Your task to perform on an android device: Open Google Chrome and click the shortcut for Amazon.com Image 0: 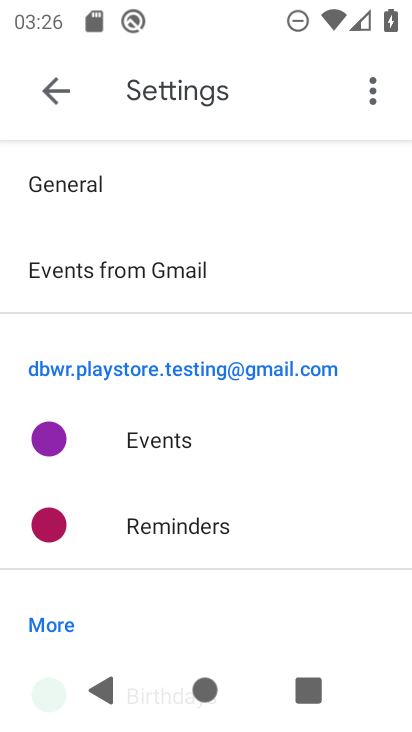
Step 0: press home button
Your task to perform on an android device: Open Google Chrome and click the shortcut for Amazon.com Image 1: 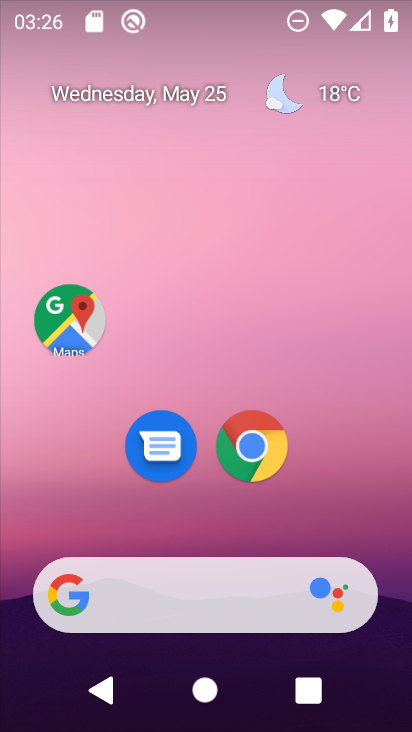
Step 1: click (239, 440)
Your task to perform on an android device: Open Google Chrome and click the shortcut for Amazon.com Image 2: 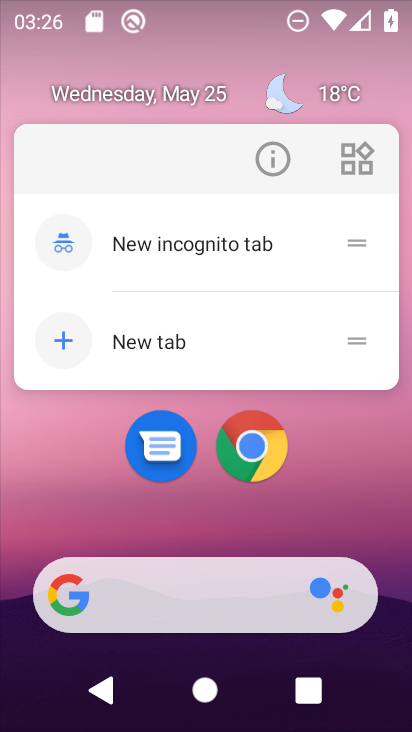
Step 2: click (239, 440)
Your task to perform on an android device: Open Google Chrome and click the shortcut for Amazon.com Image 3: 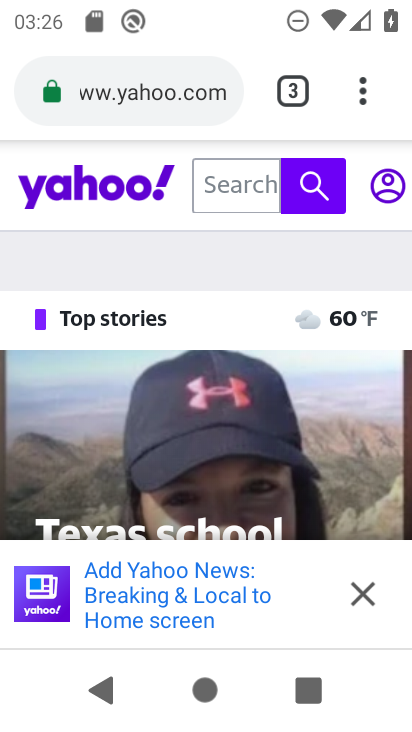
Step 3: click (154, 87)
Your task to perform on an android device: Open Google Chrome and click the shortcut for Amazon.com Image 4: 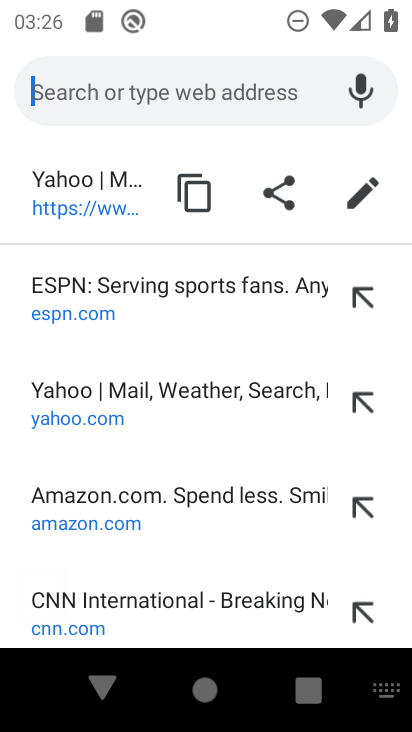
Step 4: press back button
Your task to perform on an android device: Open Google Chrome and click the shortcut for Amazon.com Image 5: 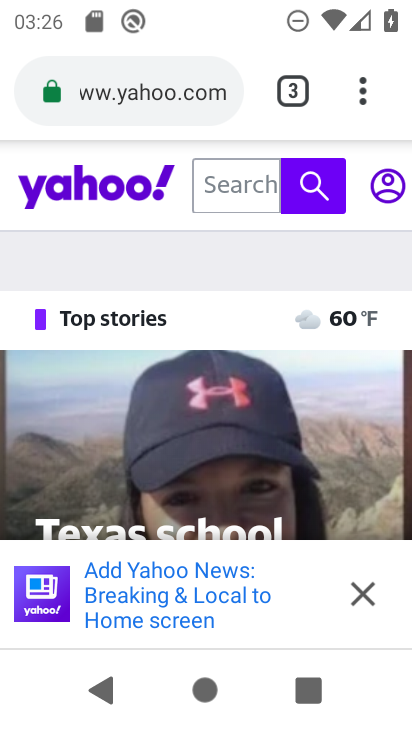
Step 5: click (273, 91)
Your task to perform on an android device: Open Google Chrome and click the shortcut for Amazon.com Image 6: 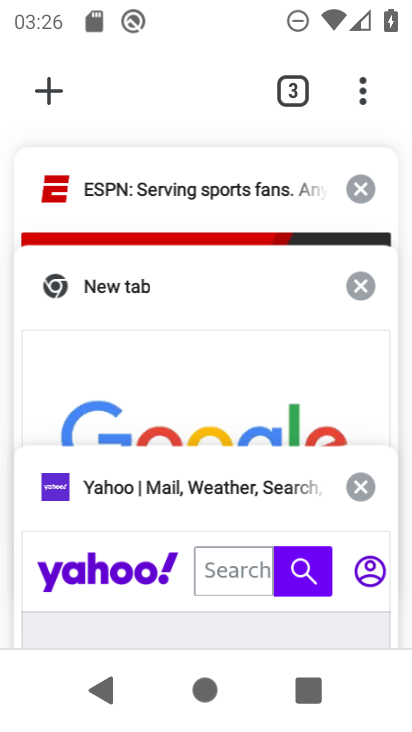
Step 6: click (45, 90)
Your task to perform on an android device: Open Google Chrome and click the shortcut for Amazon.com Image 7: 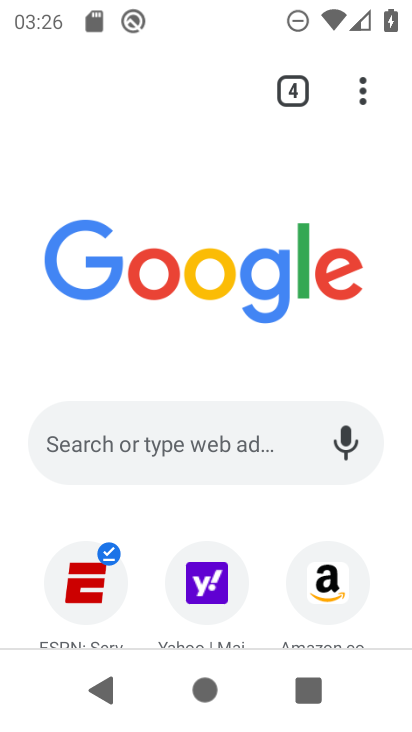
Step 7: click (309, 574)
Your task to perform on an android device: Open Google Chrome and click the shortcut for Amazon.com Image 8: 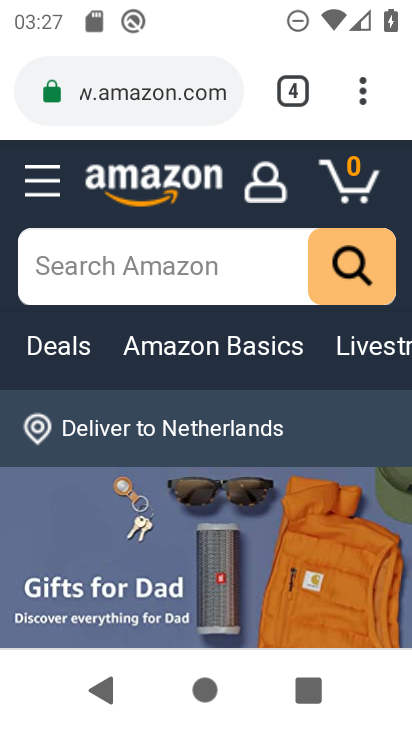
Step 8: task complete